Your task to perform on an android device: toggle show notifications on the lock screen Image 0: 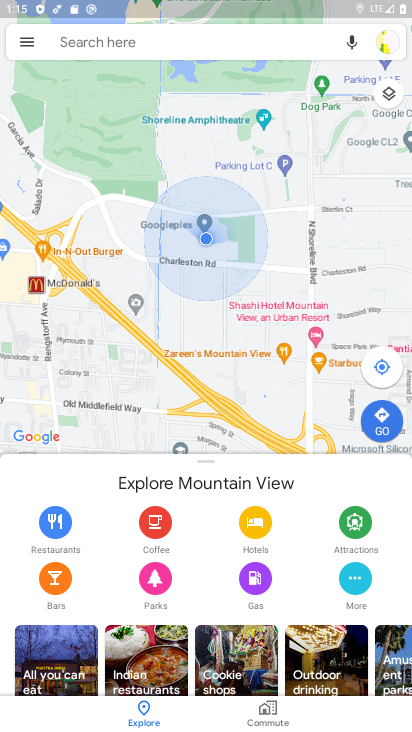
Step 0: press home button
Your task to perform on an android device: toggle show notifications on the lock screen Image 1: 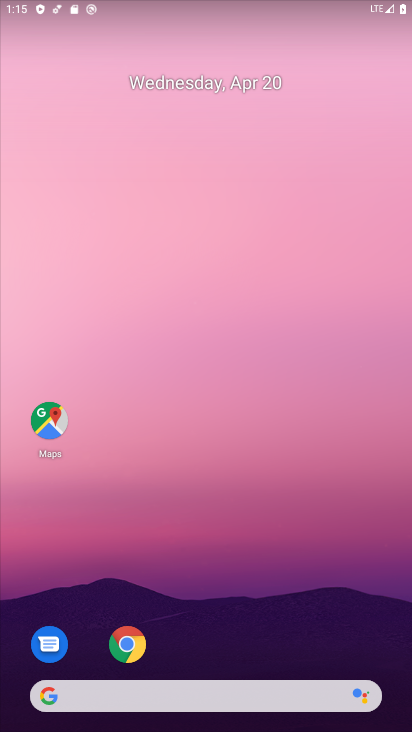
Step 1: drag from (189, 522) to (235, 49)
Your task to perform on an android device: toggle show notifications on the lock screen Image 2: 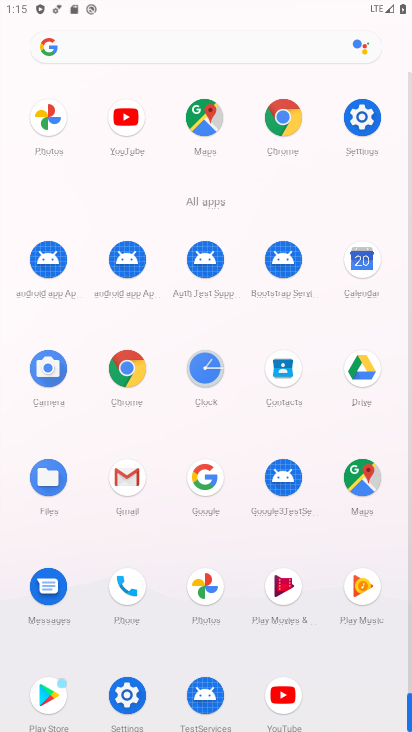
Step 2: click (371, 119)
Your task to perform on an android device: toggle show notifications on the lock screen Image 3: 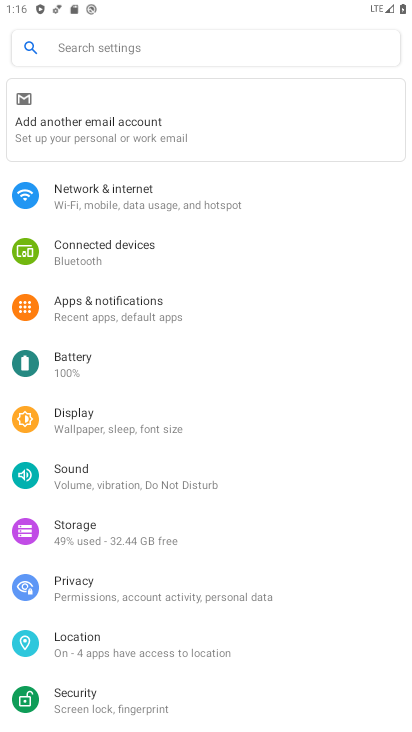
Step 3: click (124, 295)
Your task to perform on an android device: toggle show notifications on the lock screen Image 4: 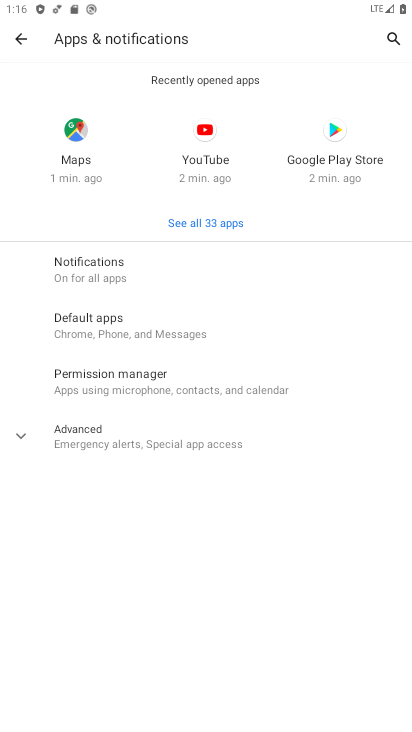
Step 4: click (109, 269)
Your task to perform on an android device: toggle show notifications on the lock screen Image 5: 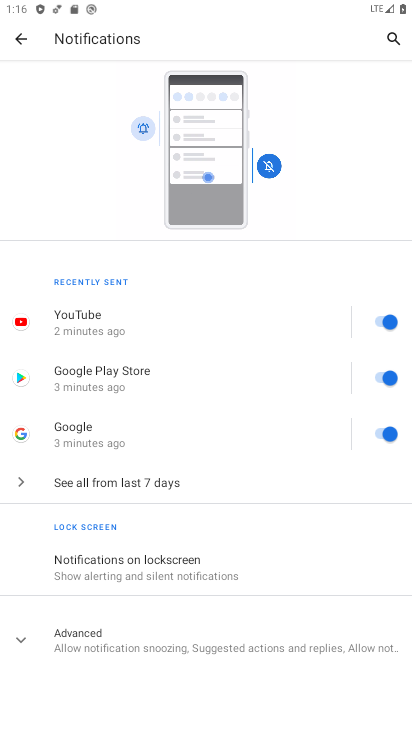
Step 5: drag from (207, 585) to (200, 221)
Your task to perform on an android device: toggle show notifications on the lock screen Image 6: 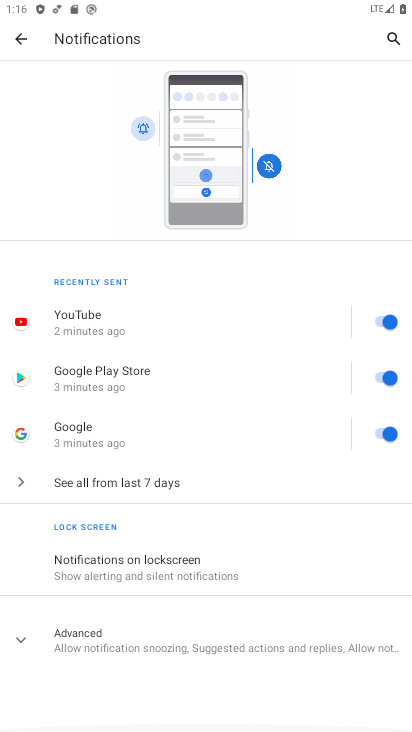
Step 6: click (175, 560)
Your task to perform on an android device: toggle show notifications on the lock screen Image 7: 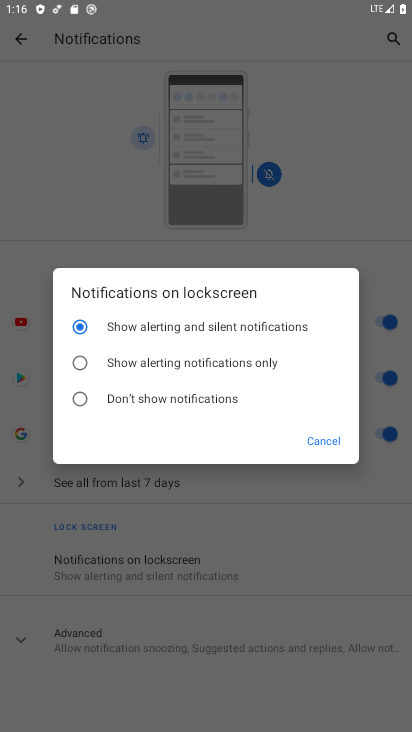
Step 7: click (90, 364)
Your task to perform on an android device: toggle show notifications on the lock screen Image 8: 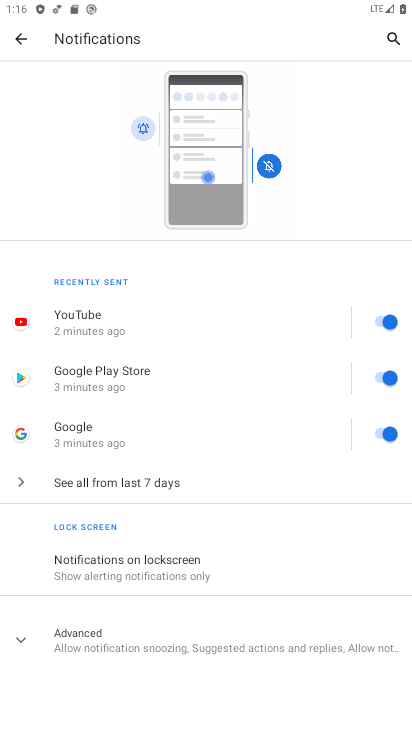
Step 8: task complete